Your task to perform on an android device: change the clock display to digital Image 0: 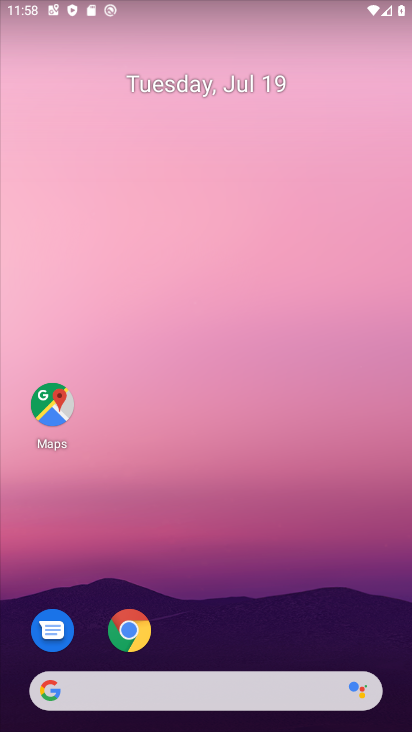
Step 0: drag from (286, 675) to (289, 267)
Your task to perform on an android device: change the clock display to digital Image 1: 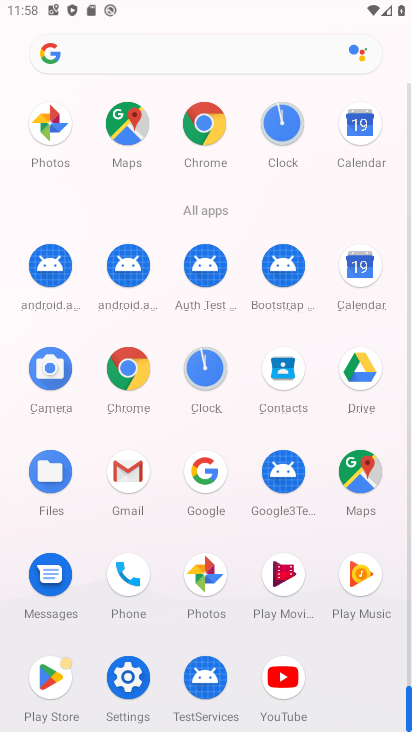
Step 1: click (213, 375)
Your task to perform on an android device: change the clock display to digital Image 2: 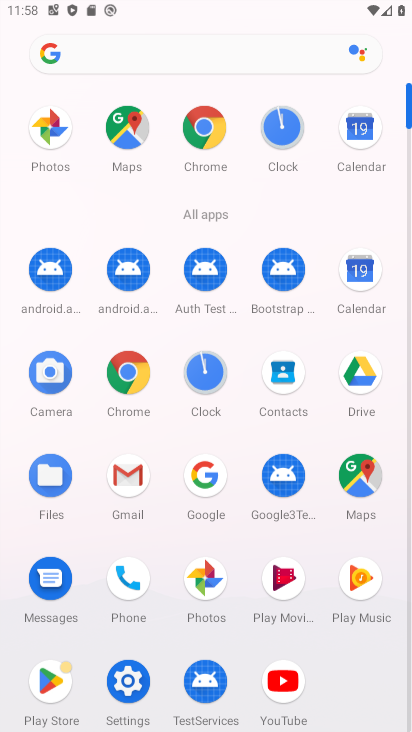
Step 2: click (206, 380)
Your task to perform on an android device: change the clock display to digital Image 3: 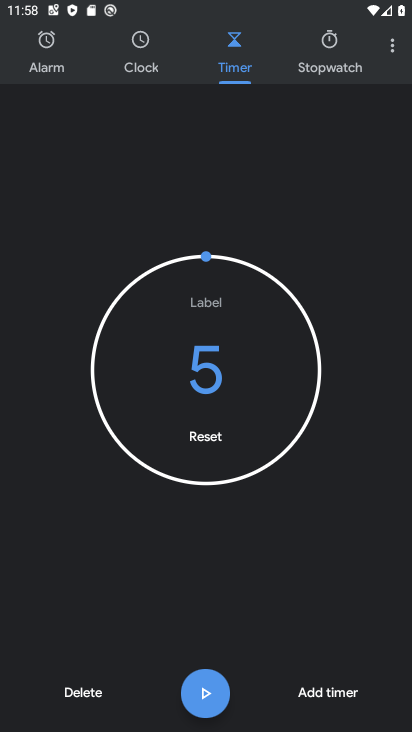
Step 3: press back button
Your task to perform on an android device: change the clock display to digital Image 4: 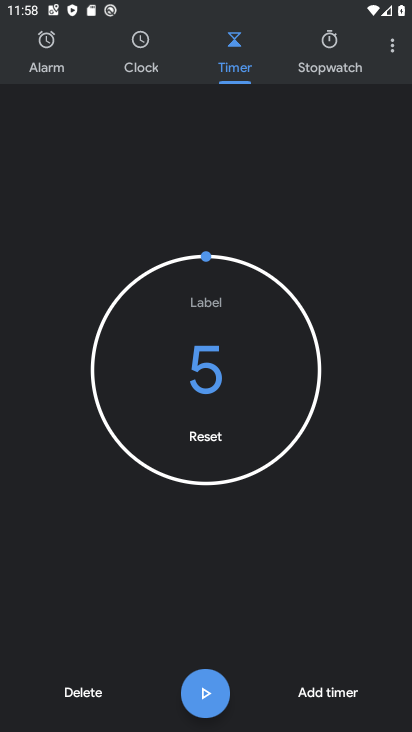
Step 4: press back button
Your task to perform on an android device: change the clock display to digital Image 5: 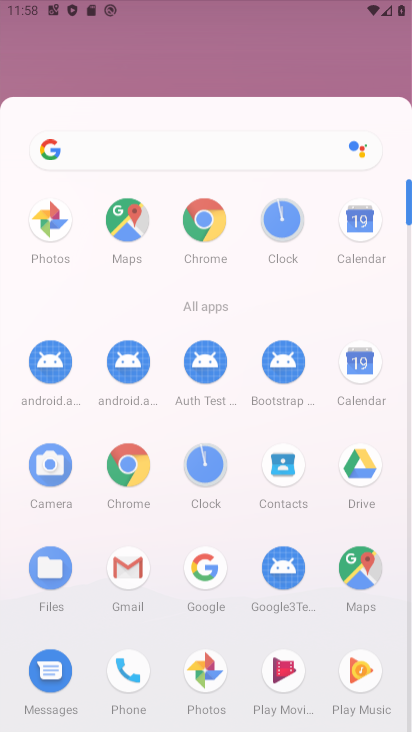
Step 5: press back button
Your task to perform on an android device: change the clock display to digital Image 6: 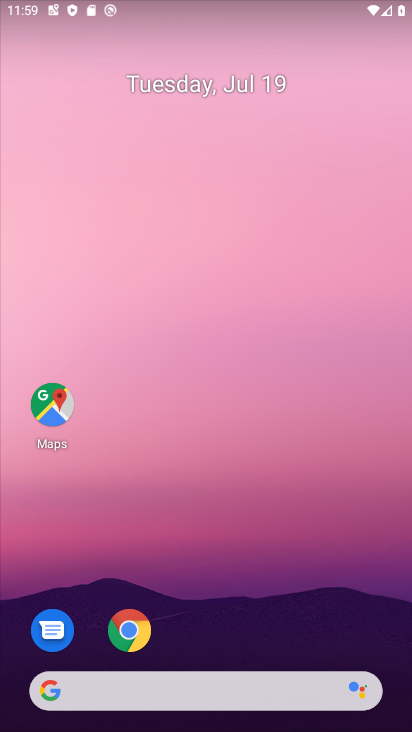
Step 6: drag from (231, 597) to (183, 226)
Your task to perform on an android device: change the clock display to digital Image 7: 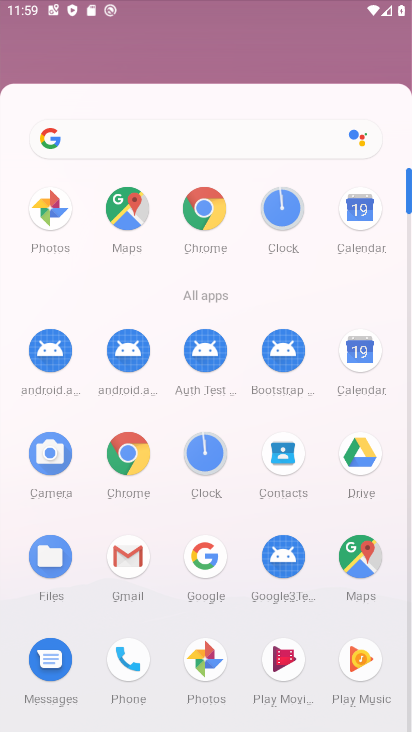
Step 7: drag from (204, 415) to (213, 13)
Your task to perform on an android device: change the clock display to digital Image 8: 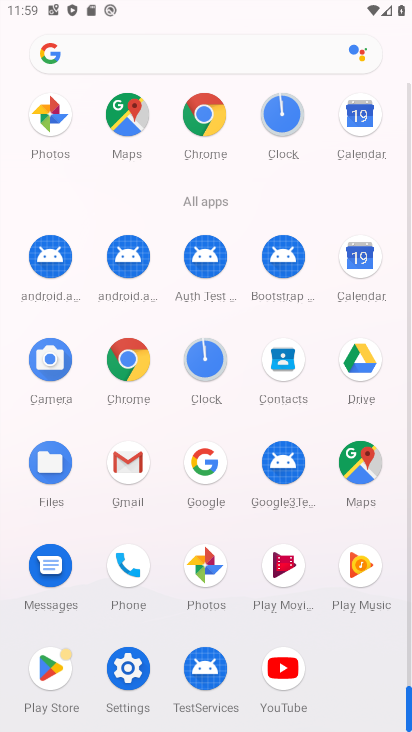
Step 8: click (203, 344)
Your task to perform on an android device: change the clock display to digital Image 9: 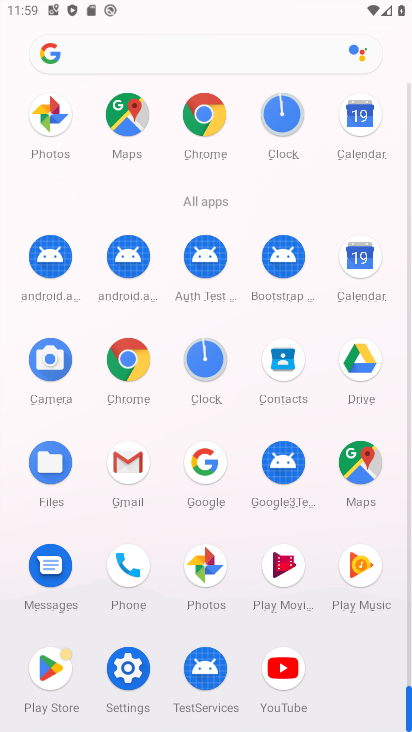
Step 9: click (206, 345)
Your task to perform on an android device: change the clock display to digital Image 10: 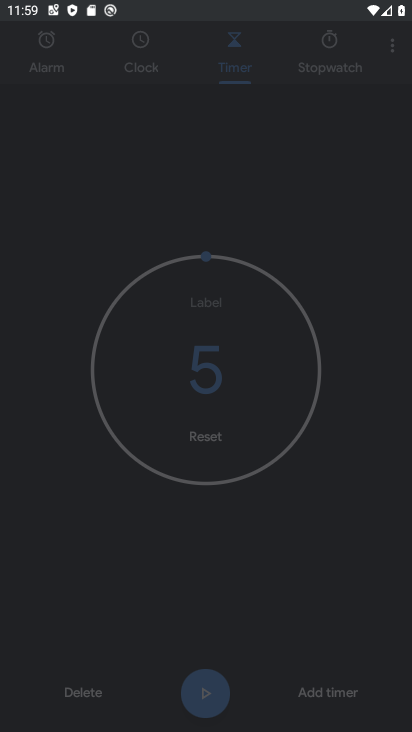
Step 10: click (207, 344)
Your task to perform on an android device: change the clock display to digital Image 11: 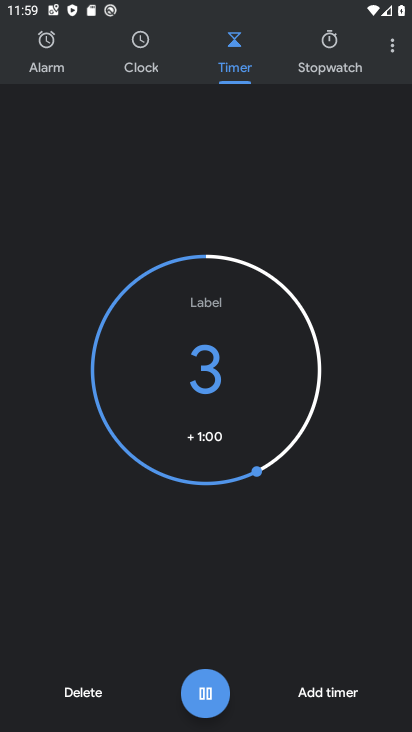
Step 11: click (208, 691)
Your task to perform on an android device: change the clock display to digital Image 12: 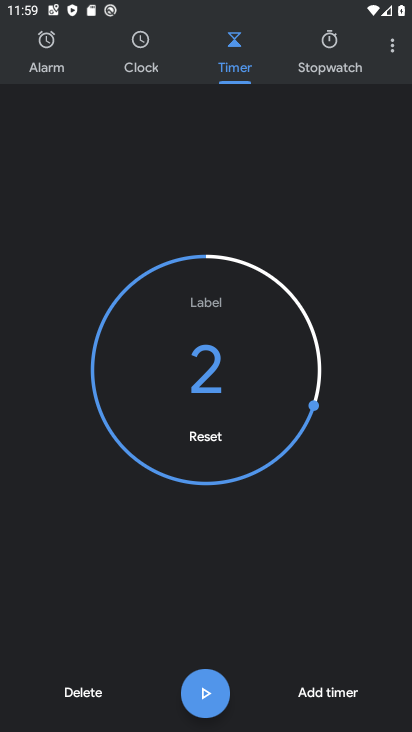
Step 12: click (393, 46)
Your task to perform on an android device: change the clock display to digital Image 13: 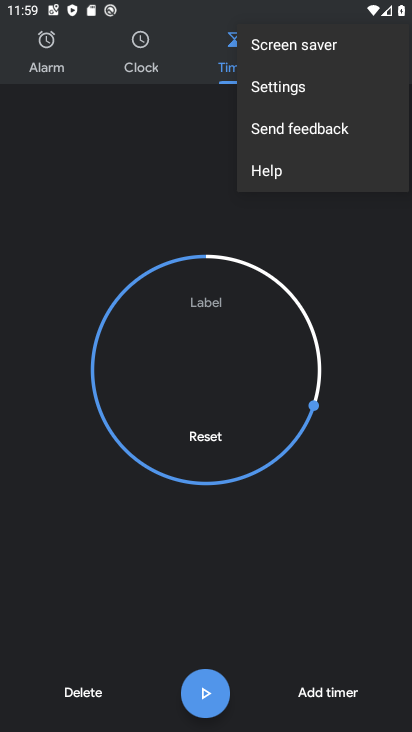
Step 13: click (291, 84)
Your task to perform on an android device: change the clock display to digital Image 14: 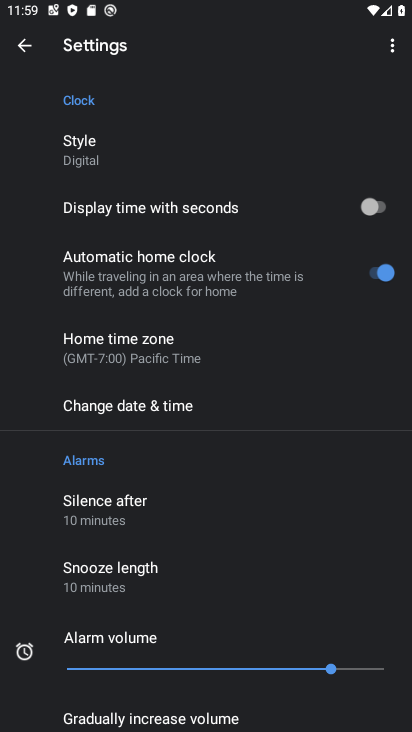
Step 14: task complete